Your task to perform on an android device: change timer sound Image 0: 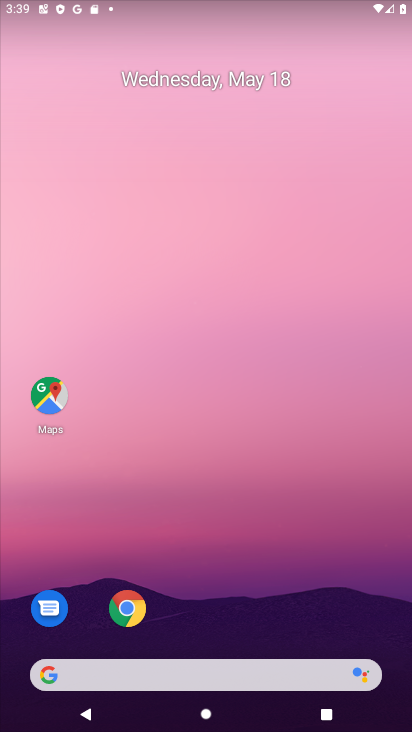
Step 0: drag from (326, 429) to (322, 158)
Your task to perform on an android device: change timer sound Image 1: 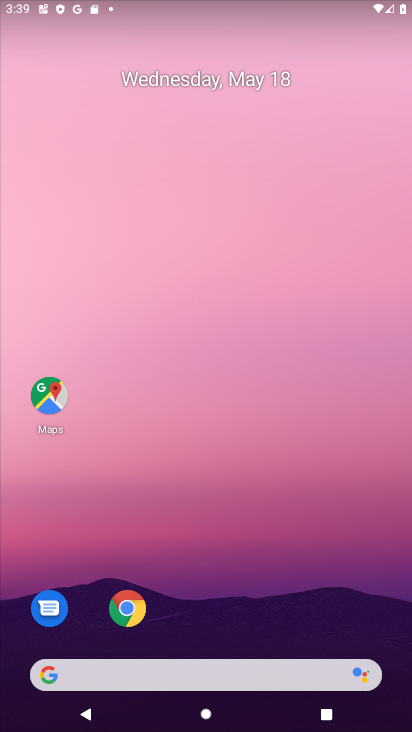
Step 1: drag from (269, 596) to (251, 132)
Your task to perform on an android device: change timer sound Image 2: 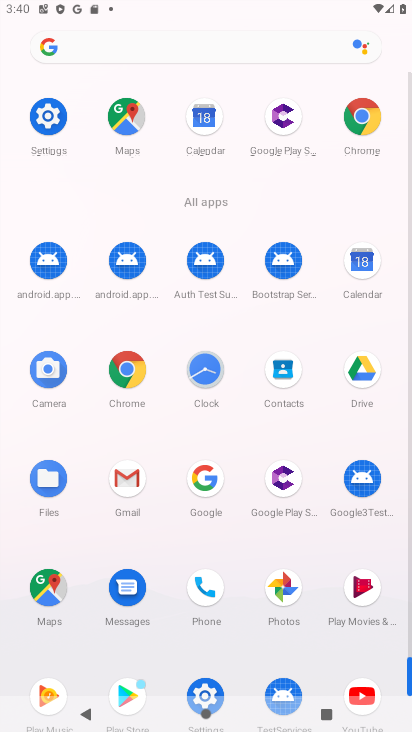
Step 2: click (207, 376)
Your task to perform on an android device: change timer sound Image 3: 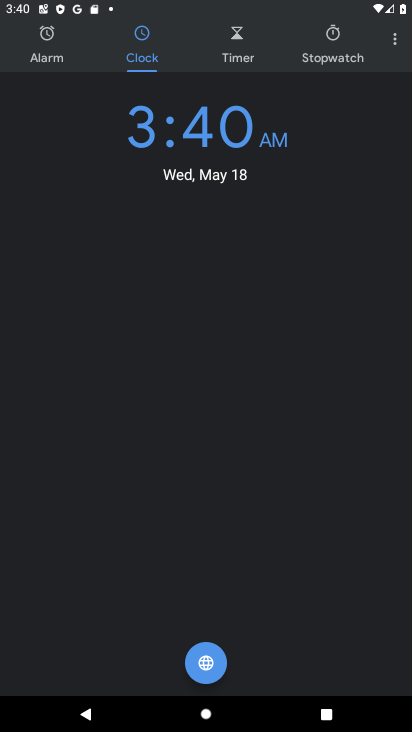
Step 3: click (395, 42)
Your task to perform on an android device: change timer sound Image 4: 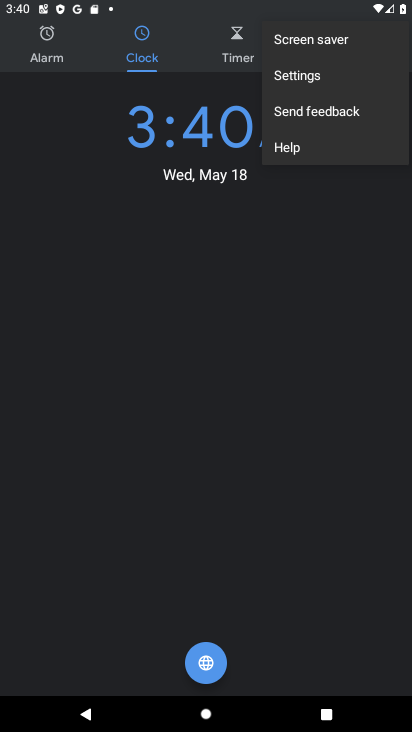
Step 4: click (329, 83)
Your task to perform on an android device: change timer sound Image 5: 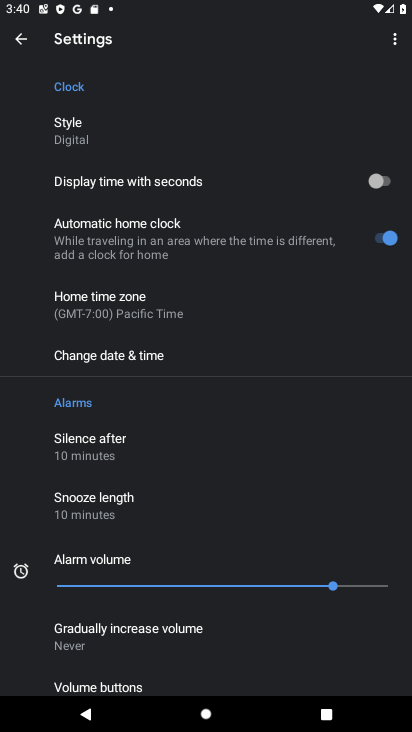
Step 5: drag from (201, 523) to (210, 289)
Your task to perform on an android device: change timer sound Image 6: 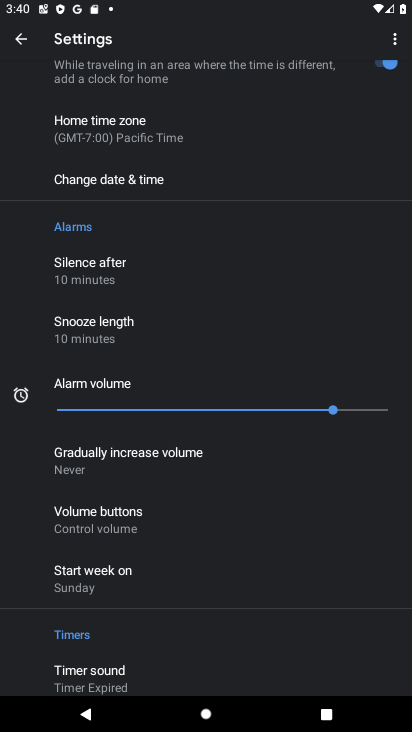
Step 6: click (114, 686)
Your task to perform on an android device: change timer sound Image 7: 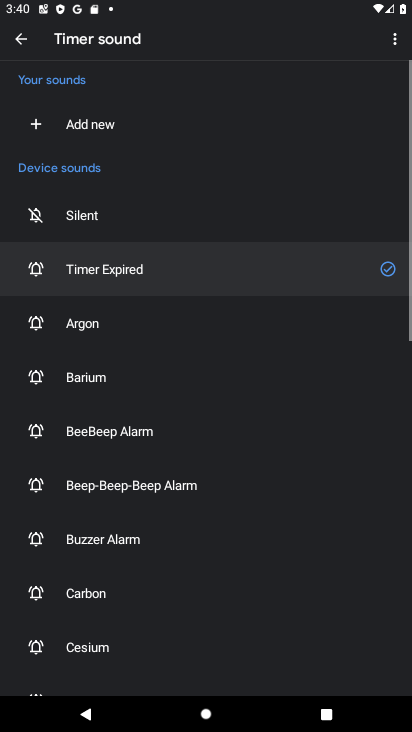
Step 7: click (171, 339)
Your task to perform on an android device: change timer sound Image 8: 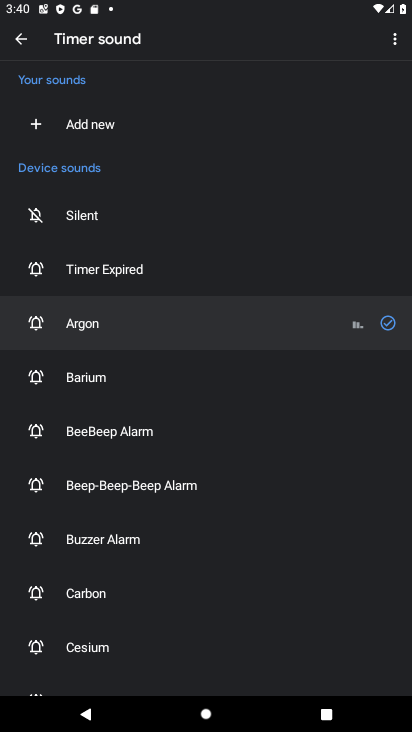
Step 8: task complete